Your task to perform on an android device: turn on location history Image 0: 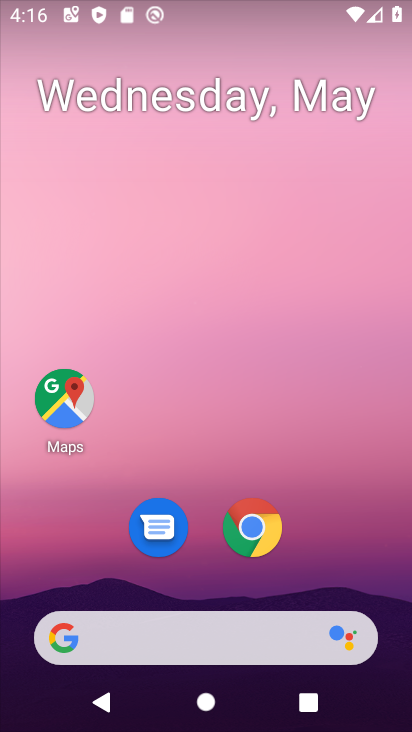
Step 0: click (78, 390)
Your task to perform on an android device: turn on location history Image 1: 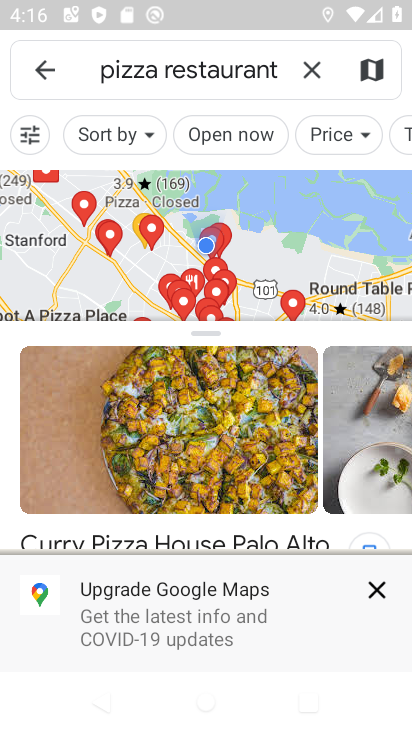
Step 1: click (37, 70)
Your task to perform on an android device: turn on location history Image 2: 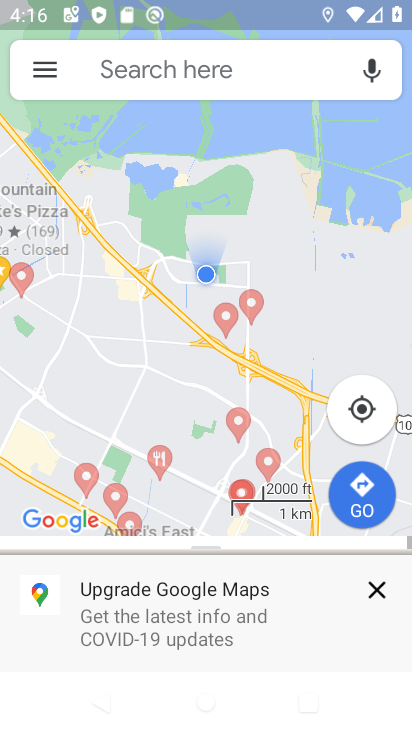
Step 2: click (37, 70)
Your task to perform on an android device: turn on location history Image 3: 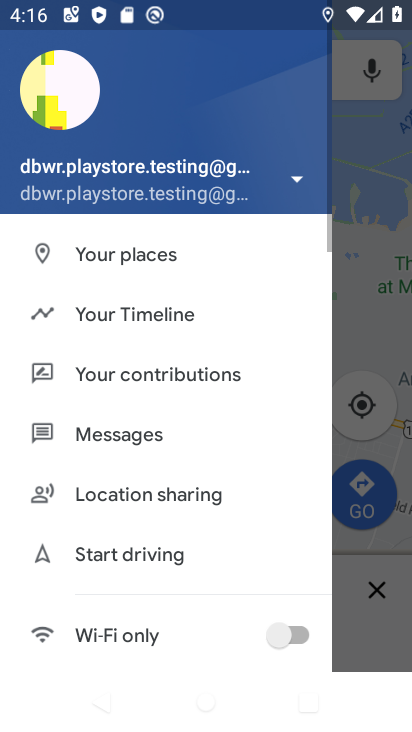
Step 3: click (192, 318)
Your task to perform on an android device: turn on location history Image 4: 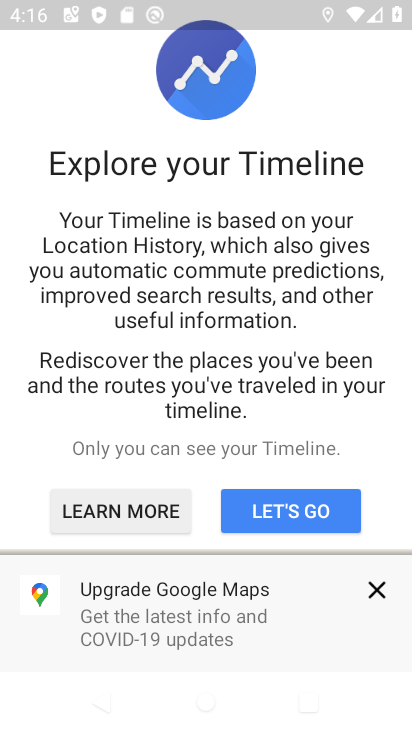
Step 4: click (285, 533)
Your task to perform on an android device: turn on location history Image 5: 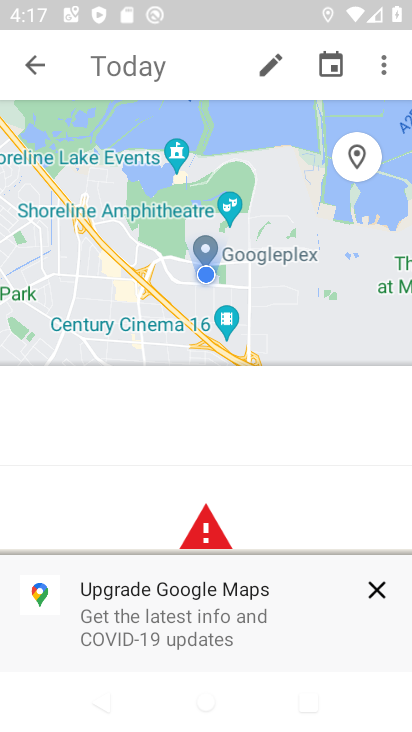
Step 5: click (393, 64)
Your task to perform on an android device: turn on location history Image 6: 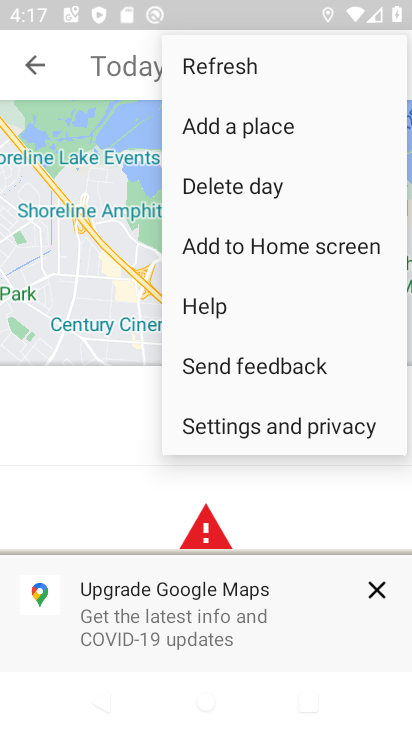
Step 6: click (244, 437)
Your task to perform on an android device: turn on location history Image 7: 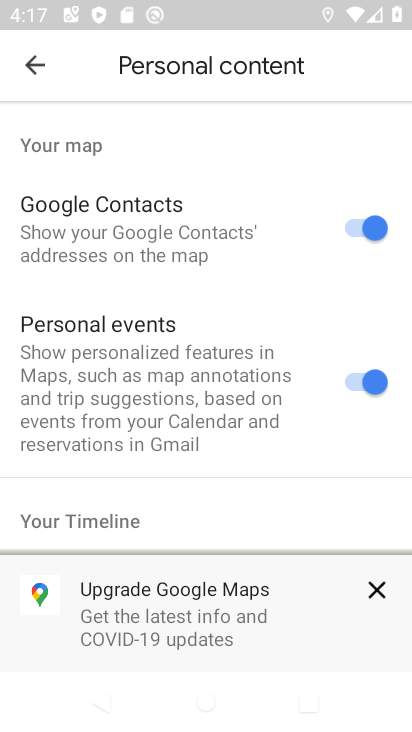
Step 7: click (377, 586)
Your task to perform on an android device: turn on location history Image 8: 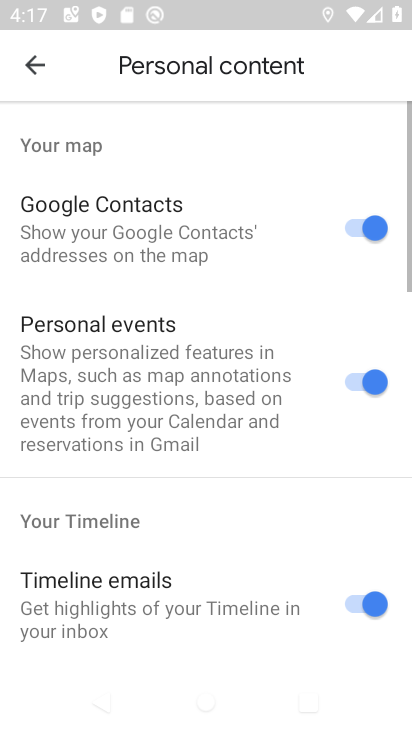
Step 8: drag from (264, 663) to (209, 97)
Your task to perform on an android device: turn on location history Image 9: 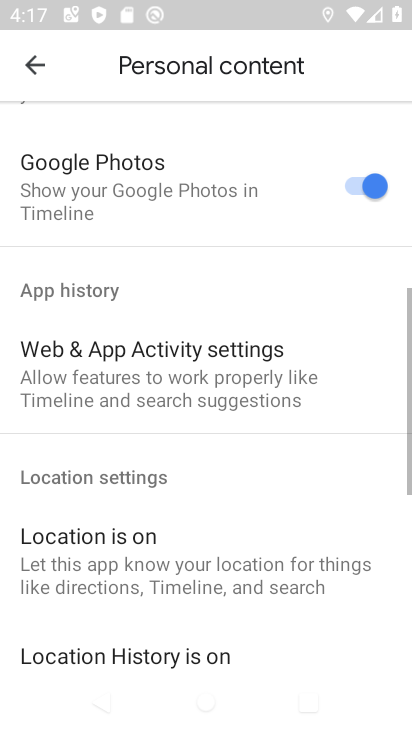
Step 9: drag from (281, 617) to (133, 221)
Your task to perform on an android device: turn on location history Image 10: 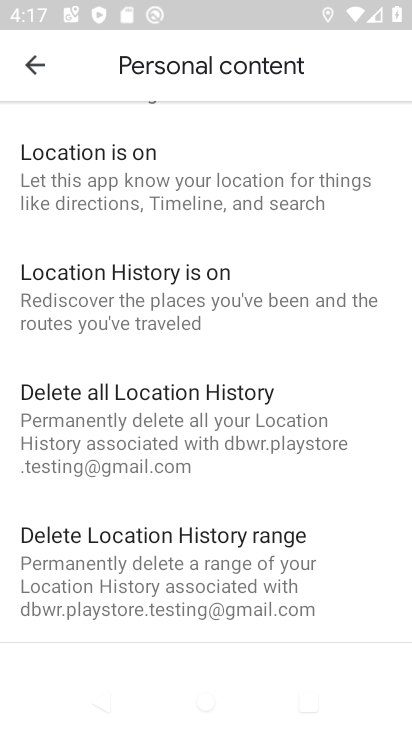
Step 10: click (210, 280)
Your task to perform on an android device: turn on location history Image 11: 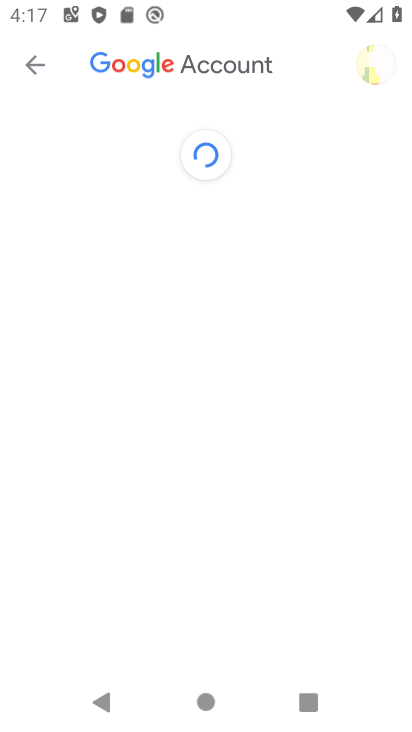
Step 11: task complete